Your task to perform on an android device: turn on notifications settings in the gmail app Image 0: 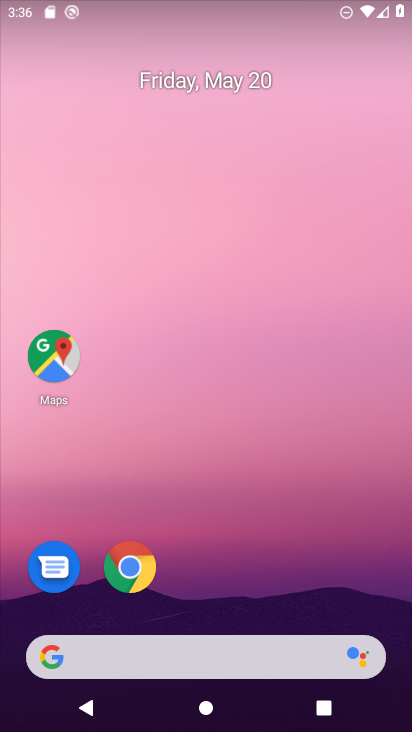
Step 0: drag from (250, 721) to (241, 140)
Your task to perform on an android device: turn on notifications settings in the gmail app Image 1: 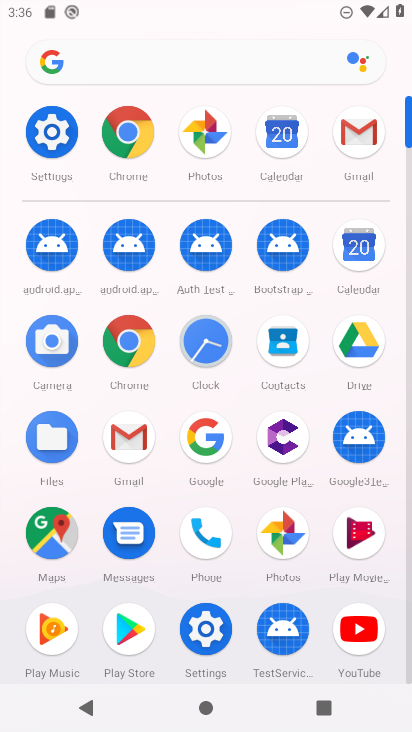
Step 1: click (129, 440)
Your task to perform on an android device: turn on notifications settings in the gmail app Image 2: 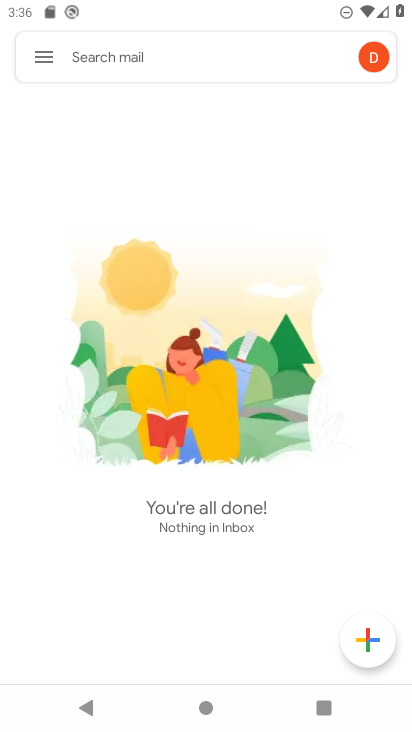
Step 2: click (45, 52)
Your task to perform on an android device: turn on notifications settings in the gmail app Image 3: 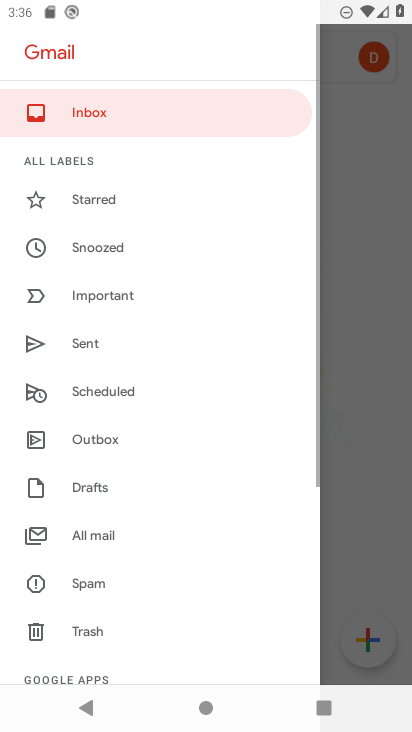
Step 3: drag from (96, 611) to (98, 248)
Your task to perform on an android device: turn on notifications settings in the gmail app Image 4: 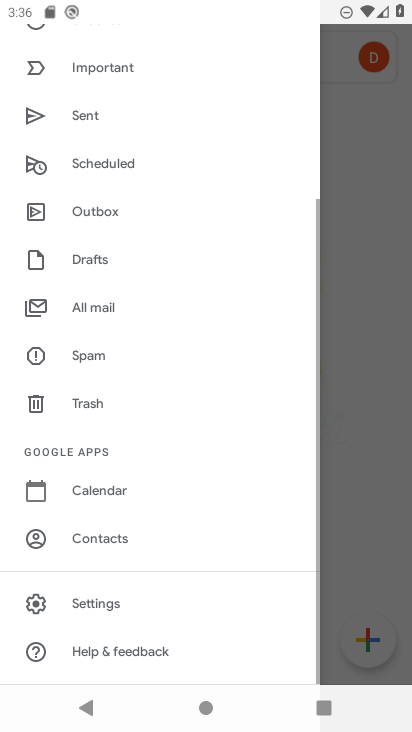
Step 4: click (109, 599)
Your task to perform on an android device: turn on notifications settings in the gmail app Image 5: 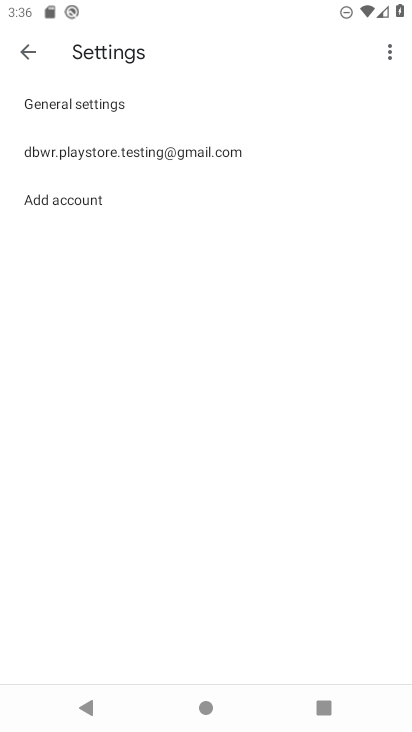
Step 5: click (155, 142)
Your task to perform on an android device: turn on notifications settings in the gmail app Image 6: 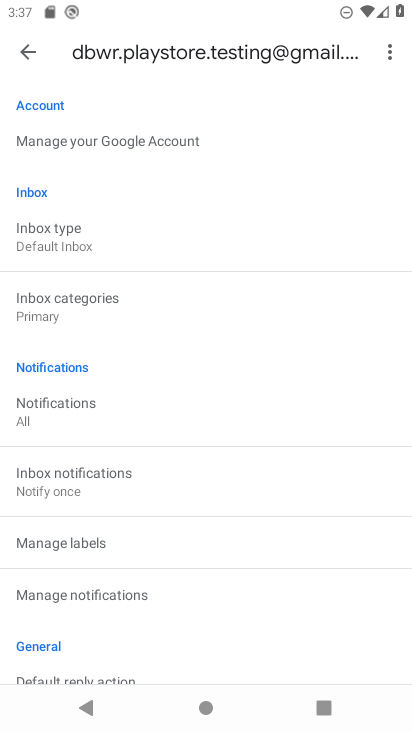
Step 6: task complete